Your task to perform on an android device: Open notification settings Image 0: 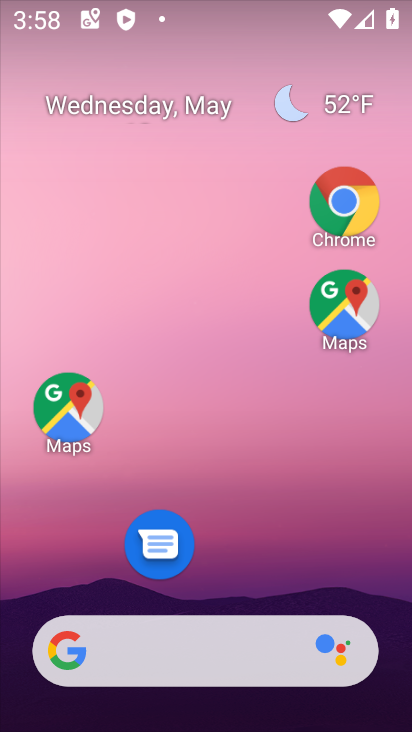
Step 0: drag from (279, 543) to (268, 11)
Your task to perform on an android device: Open notification settings Image 1: 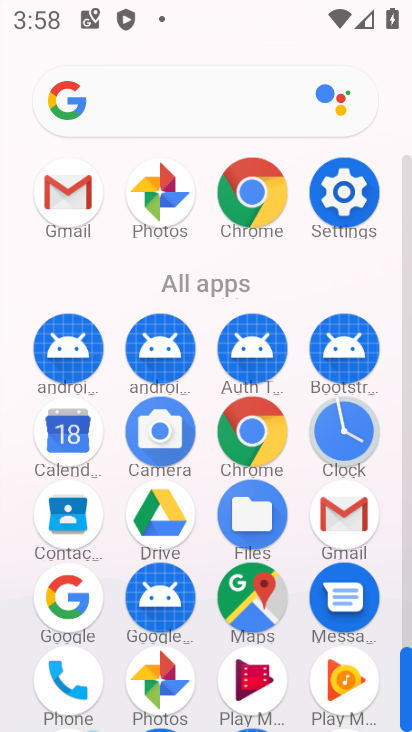
Step 1: click (348, 186)
Your task to perform on an android device: Open notification settings Image 2: 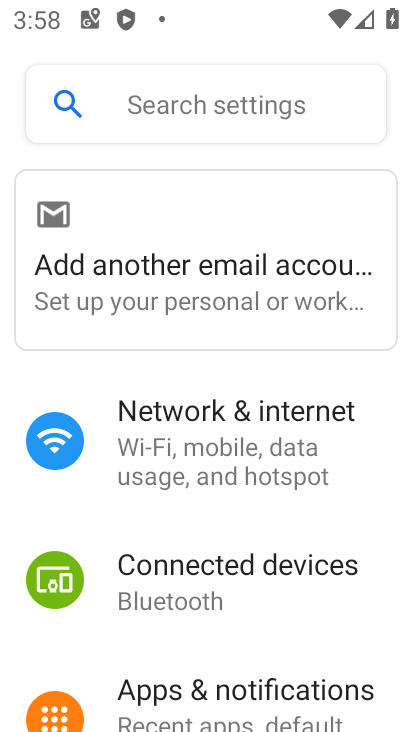
Step 2: click (199, 706)
Your task to perform on an android device: Open notification settings Image 3: 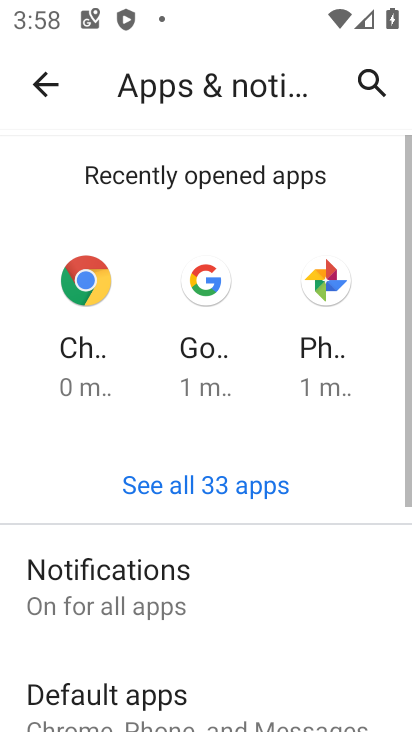
Step 3: click (144, 575)
Your task to perform on an android device: Open notification settings Image 4: 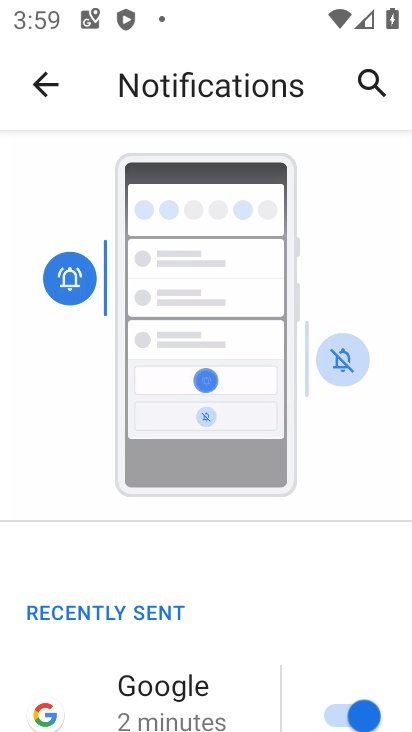
Step 4: task complete